Your task to perform on an android device: turn on bluetooth scan Image 0: 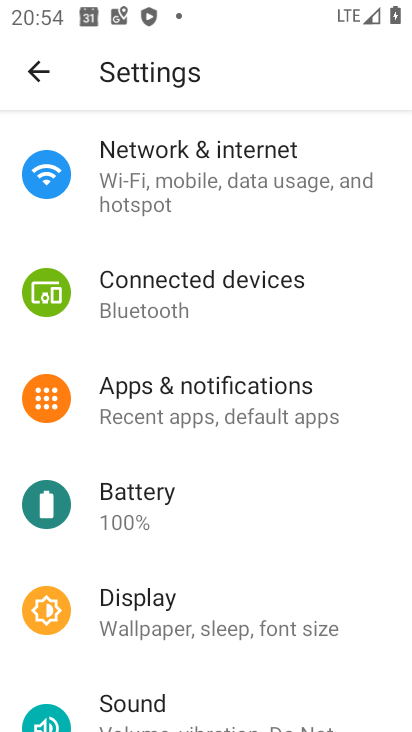
Step 0: drag from (236, 597) to (258, 224)
Your task to perform on an android device: turn on bluetooth scan Image 1: 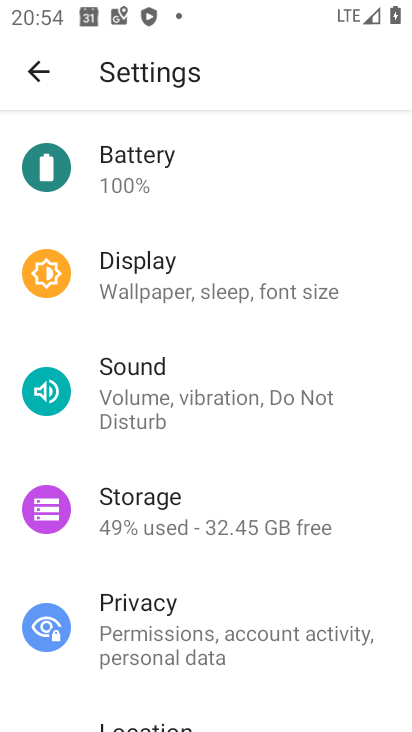
Step 1: drag from (238, 595) to (215, 156)
Your task to perform on an android device: turn on bluetooth scan Image 2: 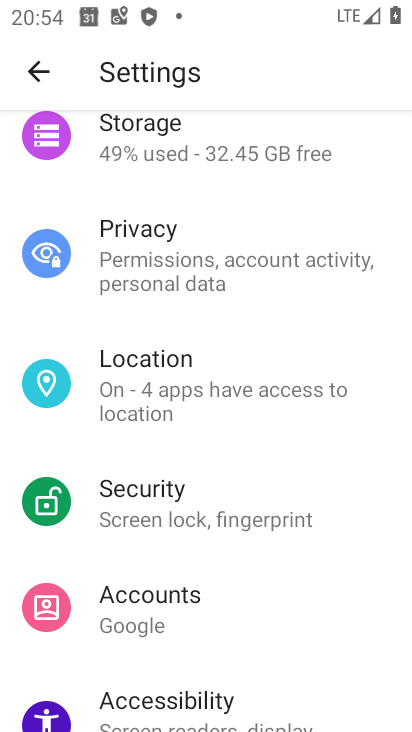
Step 2: click (159, 391)
Your task to perform on an android device: turn on bluetooth scan Image 3: 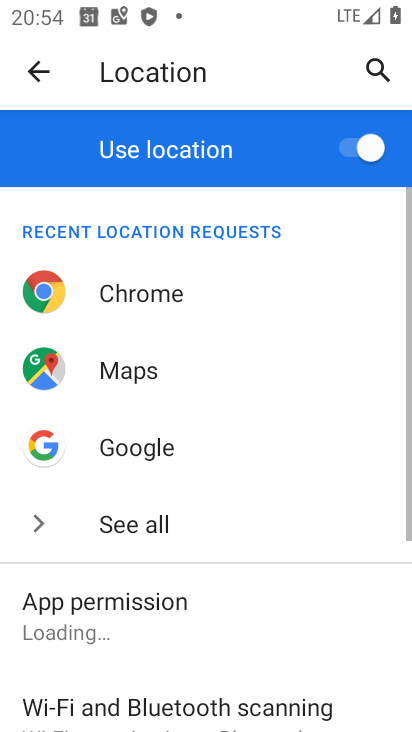
Step 3: drag from (246, 627) to (222, 142)
Your task to perform on an android device: turn on bluetooth scan Image 4: 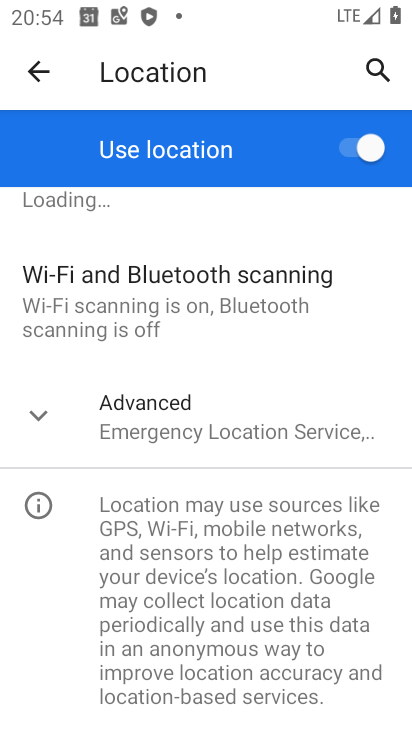
Step 4: click (127, 299)
Your task to perform on an android device: turn on bluetooth scan Image 5: 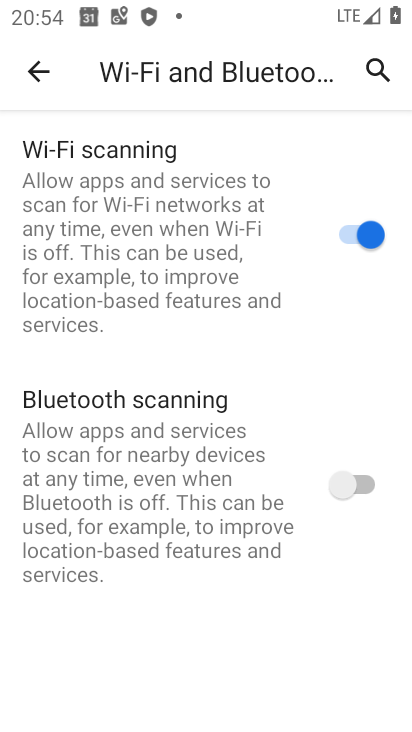
Step 5: click (332, 484)
Your task to perform on an android device: turn on bluetooth scan Image 6: 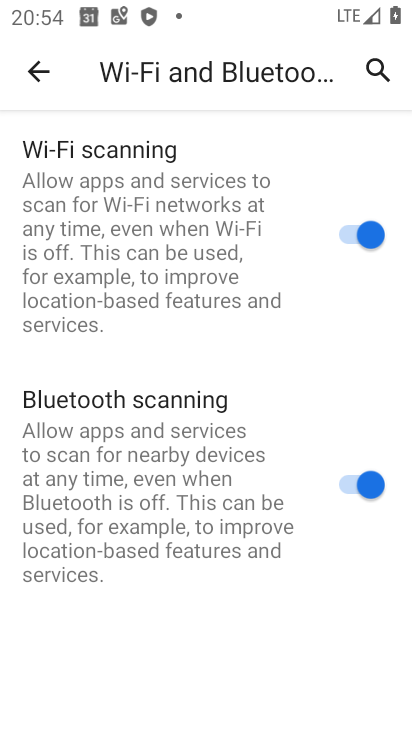
Step 6: task complete